Your task to perform on an android device: Go to sound settings Image 0: 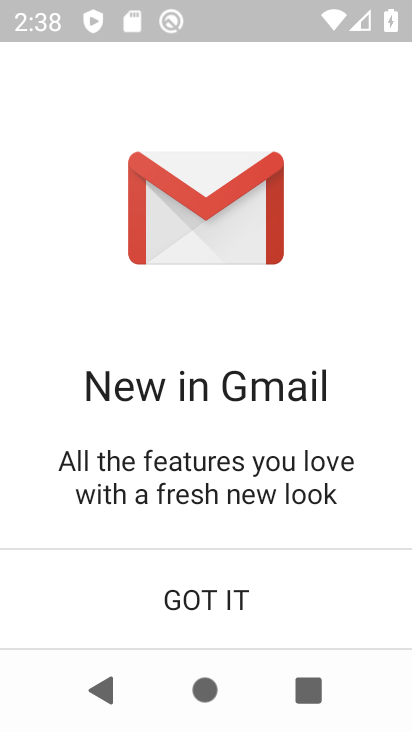
Step 0: click (271, 594)
Your task to perform on an android device: Go to sound settings Image 1: 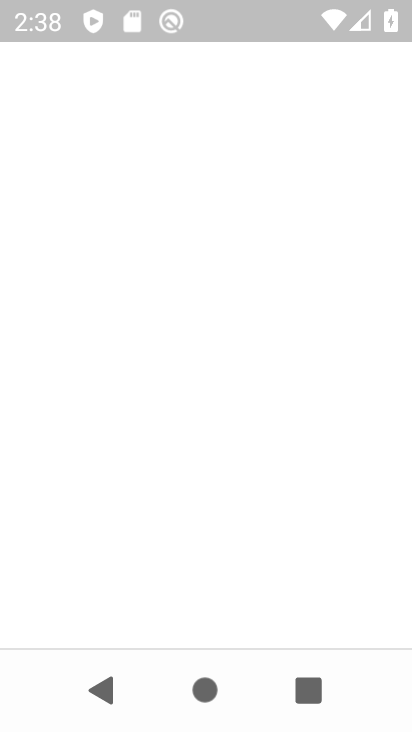
Step 1: press home button
Your task to perform on an android device: Go to sound settings Image 2: 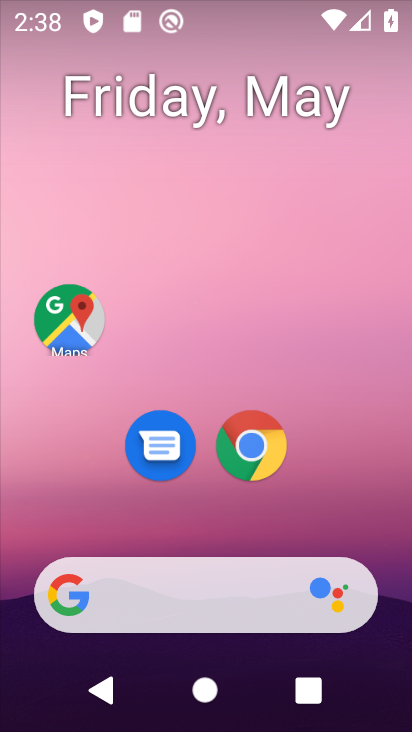
Step 2: drag from (235, 543) to (282, 53)
Your task to perform on an android device: Go to sound settings Image 3: 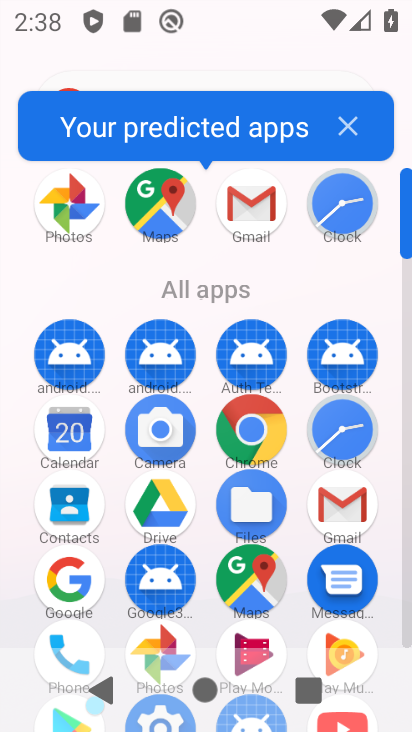
Step 3: drag from (261, 522) to (341, 61)
Your task to perform on an android device: Go to sound settings Image 4: 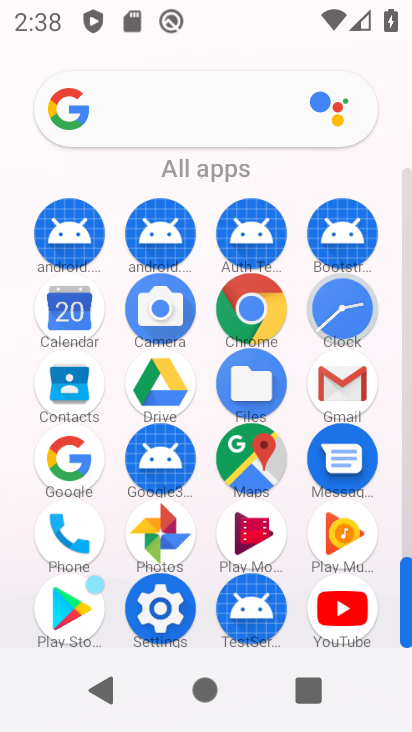
Step 4: click (162, 616)
Your task to perform on an android device: Go to sound settings Image 5: 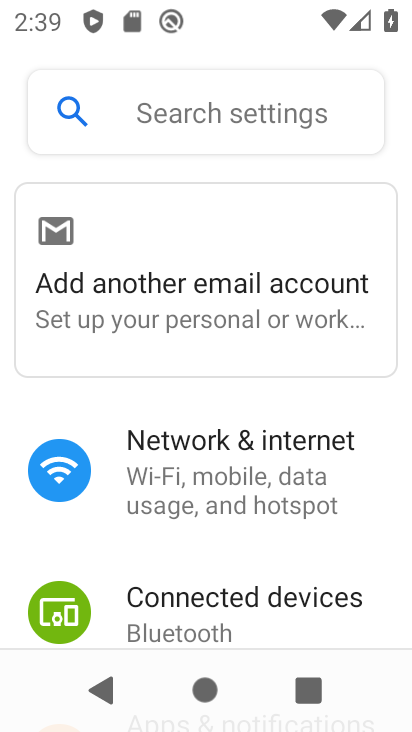
Step 5: drag from (146, 615) to (273, 33)
Your task to perform on an android device: Go to sound settings Image 6: 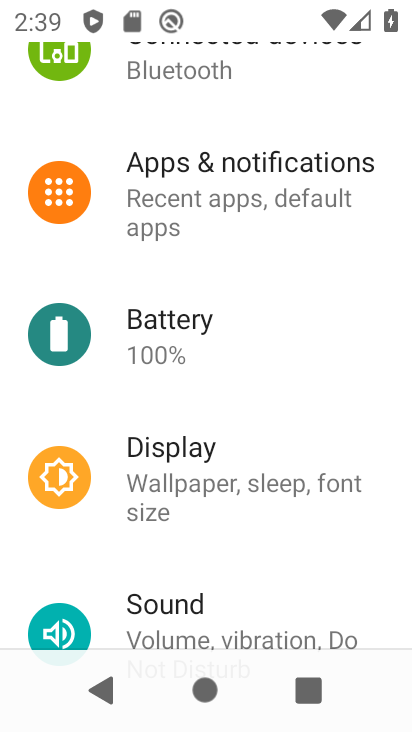
Step 6: click (218, 617)
Your task to perform on an android device: Go to sound settings Image 7: 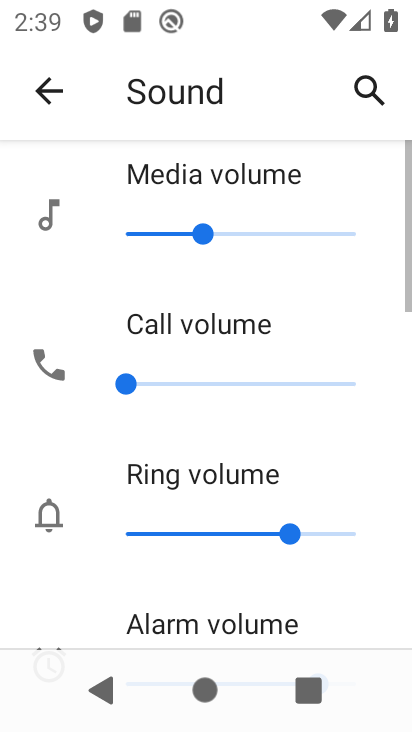
Step 7: click (184, 668)
Your task to perform on an android device: Go to sound settings Image 8: 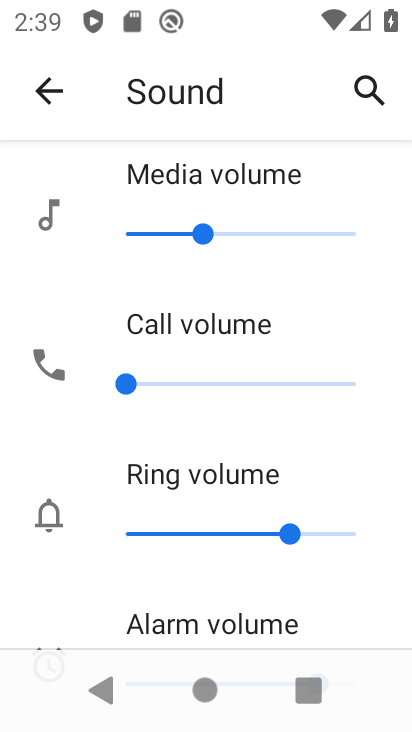
Step 8: task complete